Your task to perform on an android device: Go to network settings Image 0: 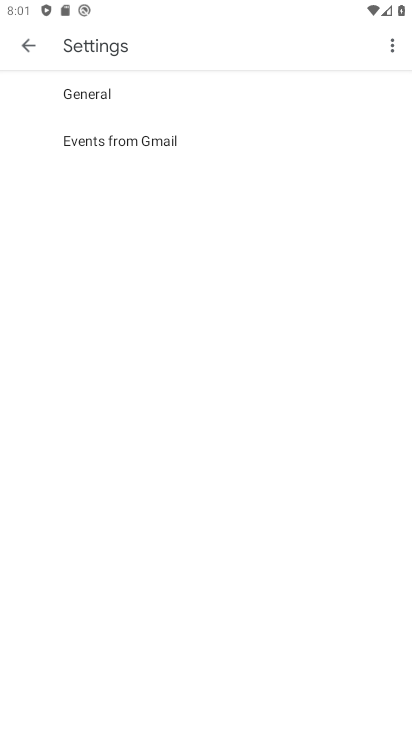
Step 0: press home button
Your task to perform on an android device: Go to network settings Image 1: 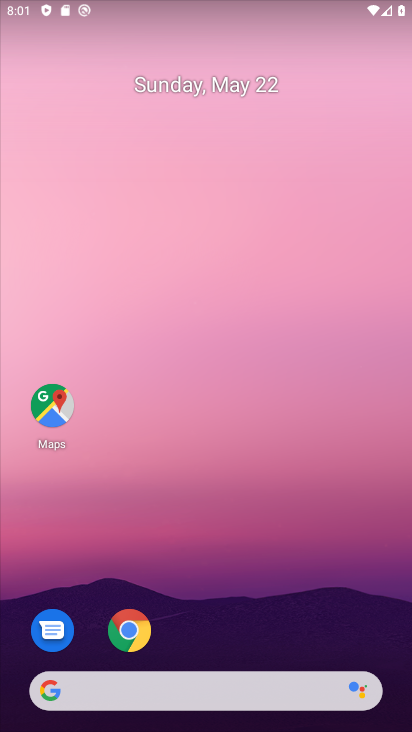
Step 1: drag from (224, 634) to (257, 187)
Your task to perform on an android device: Go to network settings Image 2: 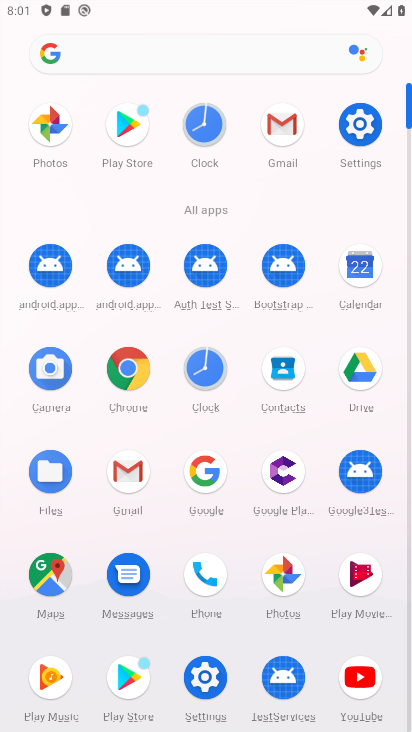
Step 2: click (351, 138)
Your task to perform on an android device: Go to network settings Image 3: 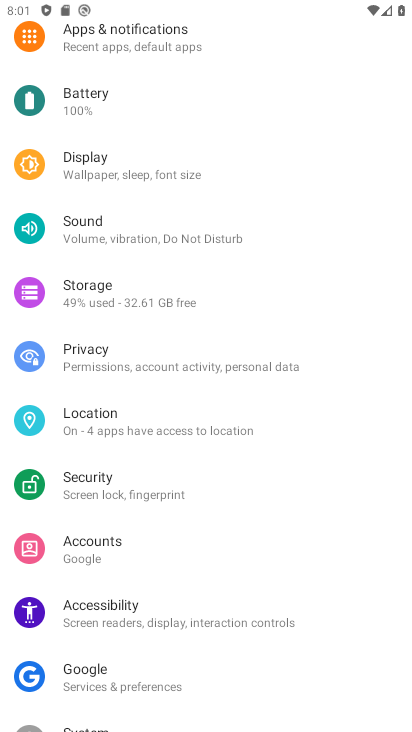
Step 3: drag from (144, 66) to (145, 484)
Your task to perform on an android device: Go to network settings Image 4: 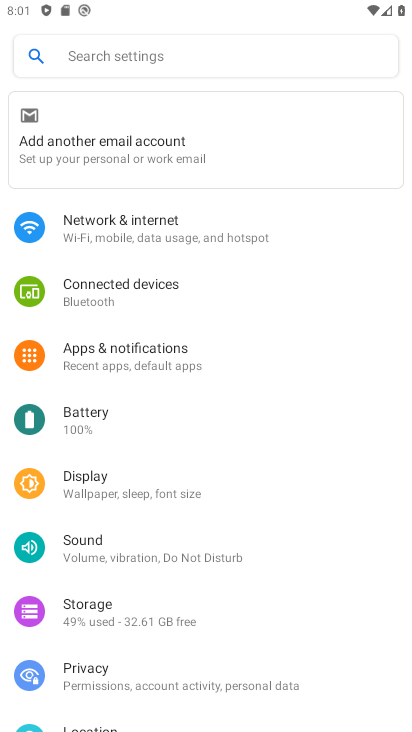
Step 4: click (162, 214)
Your task to perform on an android device: Go to network settings Image 5: 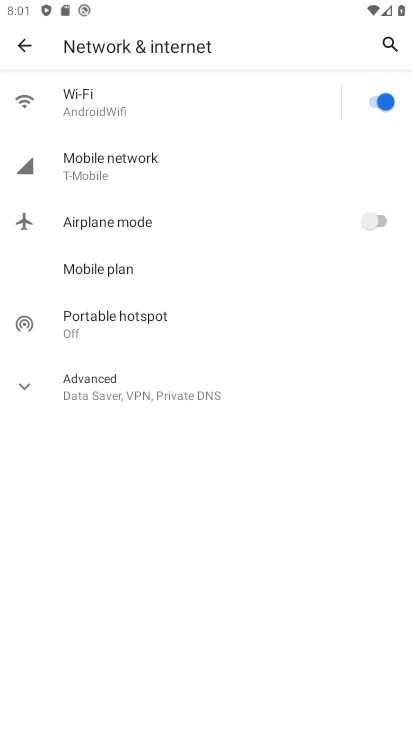
Step 5: task complete